Your task to perform on an android device: toggle show notifications on the lock screen Image 0: 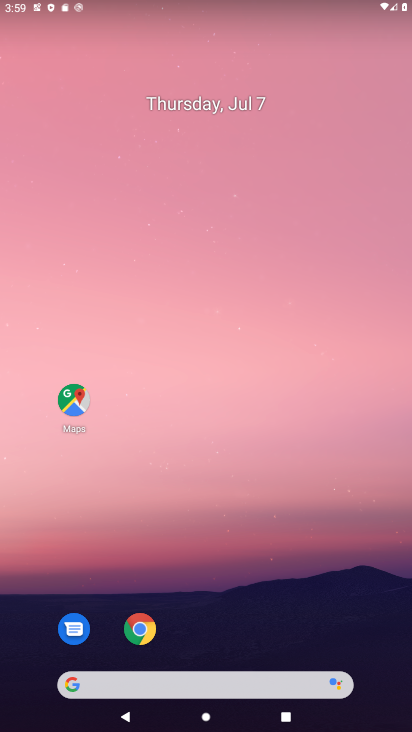
Step 0: drag from (277, 618) to (282, 302)
Your task to perform on an android device: toggle show notifications on the lock screen Image 1: 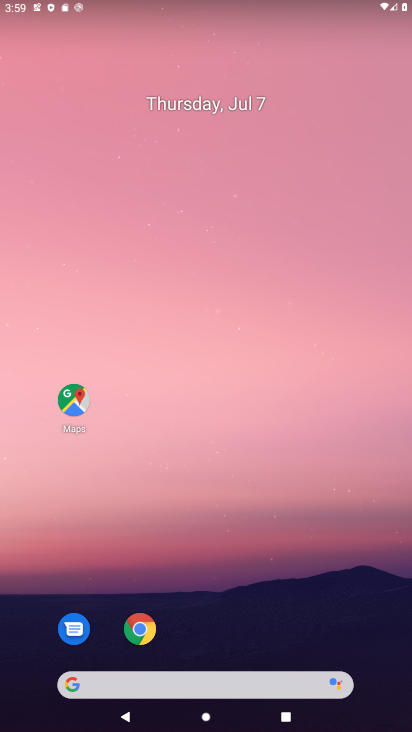
Step 1: drag from (222, 578) to (248, 211)
Your task to perform on an android device: toggle show notifications on the lock screen Image 2: 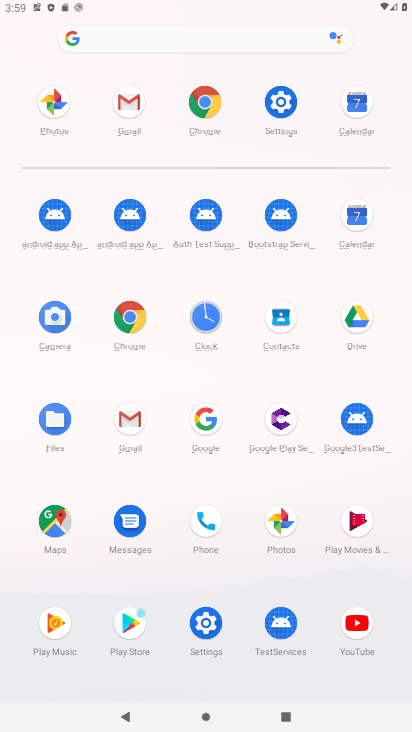
Step 2: click (276, 94)
Your task to perform on an android device: toggle show notifications on the lock screen Image 3: 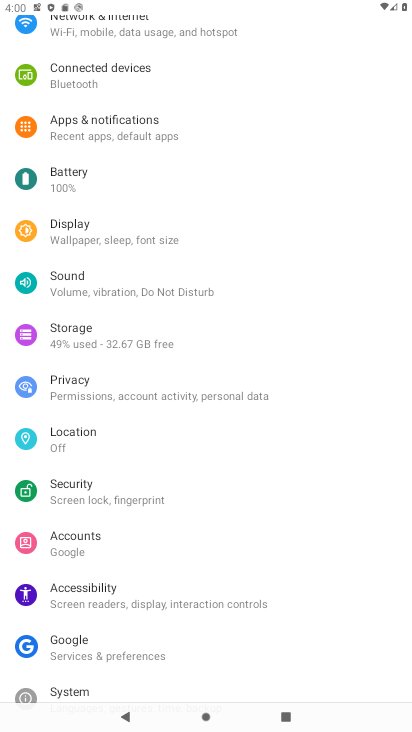
Step 3: drag from (191, 628) to (196, 175)
Your task to perform on an android device: toggle show notifications on the lock screen Image 4: 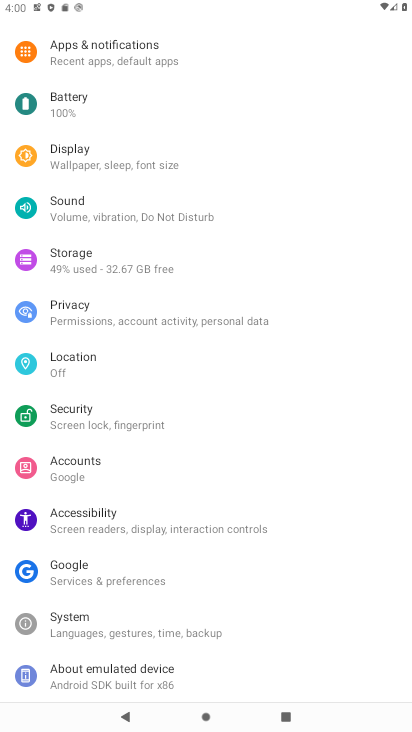
Step 4: drag from (154, 156) to (139, 653)
Your task to perform on an android device: toggle show notifications on the lock screen Image 5: 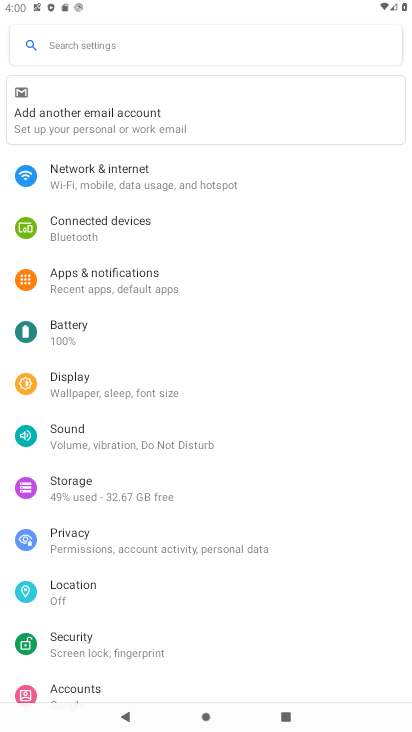
Step 5: click (159, 164)
Your task to perform on an android device: toggle show notifications on the lock screen Image 6: 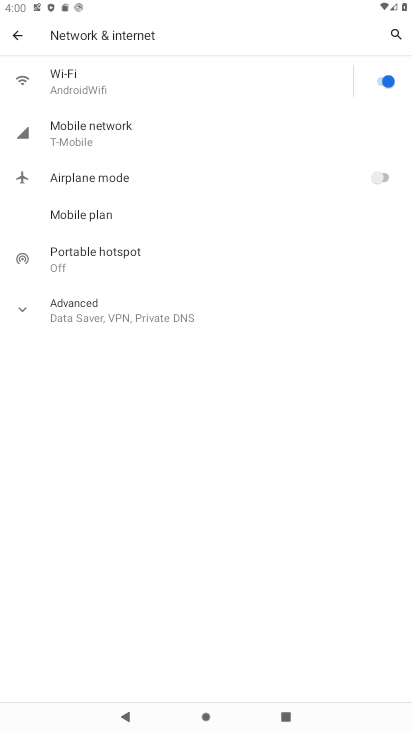
Step 6: press home button
Your task to perform on an android device: toggle show notifications on the lock screen Image 7: 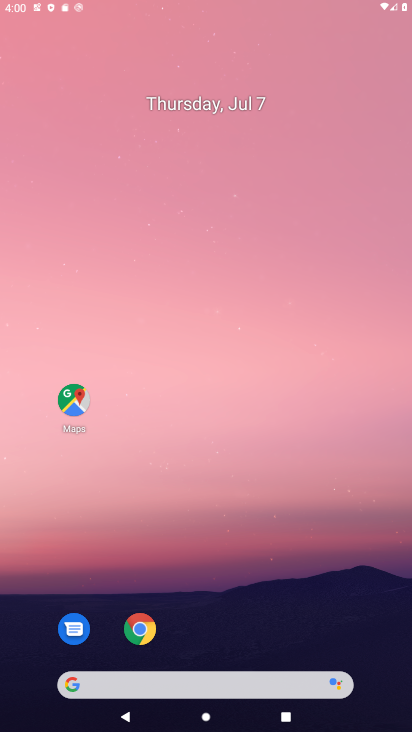
Step 7: drag from (267, 570) to (274, 175)
Your task to perform on an android device: toggle show notifications on the lock screen Image 8: 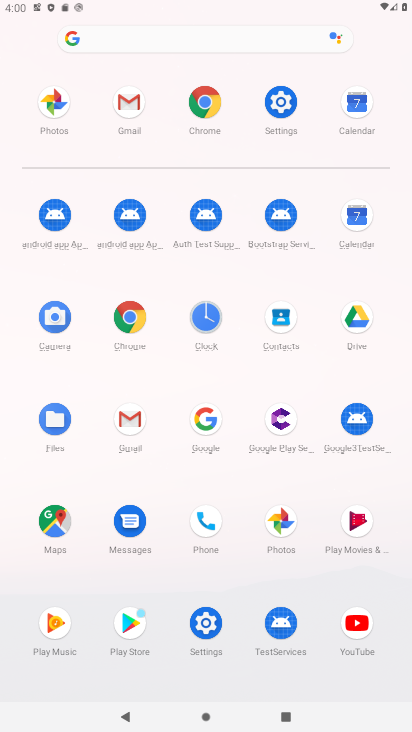
Step 8: click (273, 99)
Your task to perform on an android device: toggle show notifications on the lock screen Image 9: 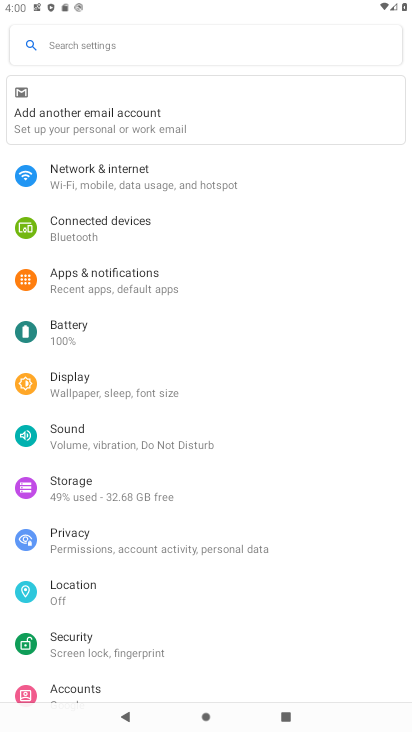
Step 9: click (119, 261)
Your task to perform on an android device: toggle show notifications on the lock screen Image 10: 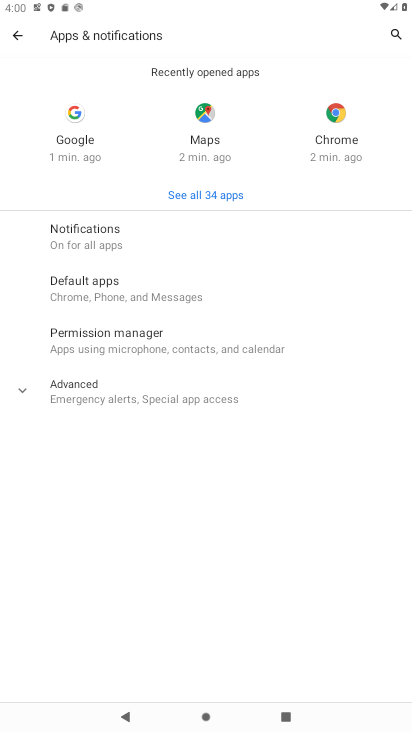
Step 10: click (102, 222)
Your task to perform on an android device: toggle show notifications on the lock screen Image 11: 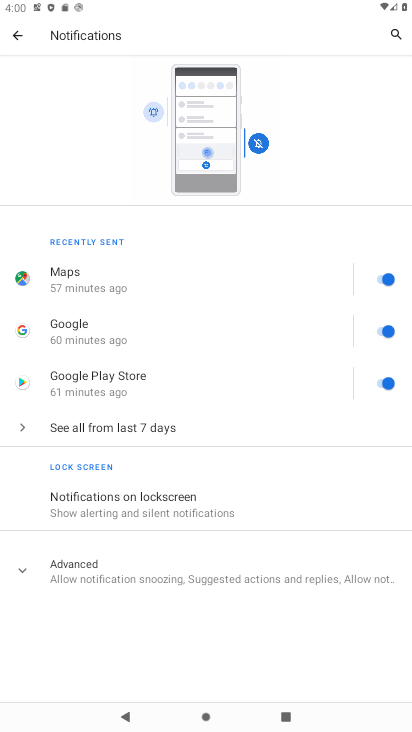
Step 11: click (246, 501)
Your task to perform on an android device: toggle show notifications on the lock screen Image 12: 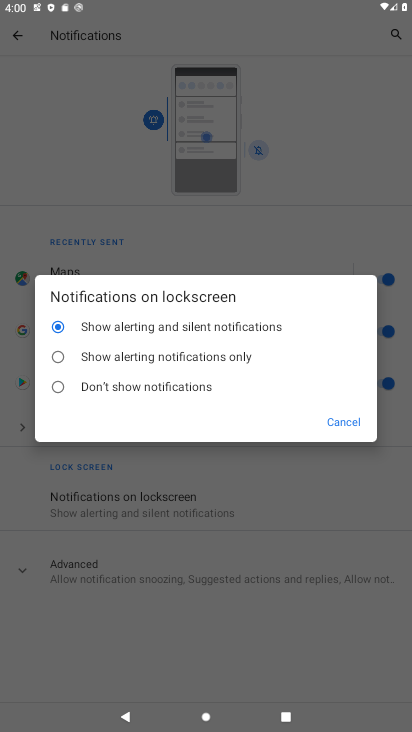
Step 12: click (159, 352)
Your task to perform on an android device: toggle show notifications on the lock screen Image 13: 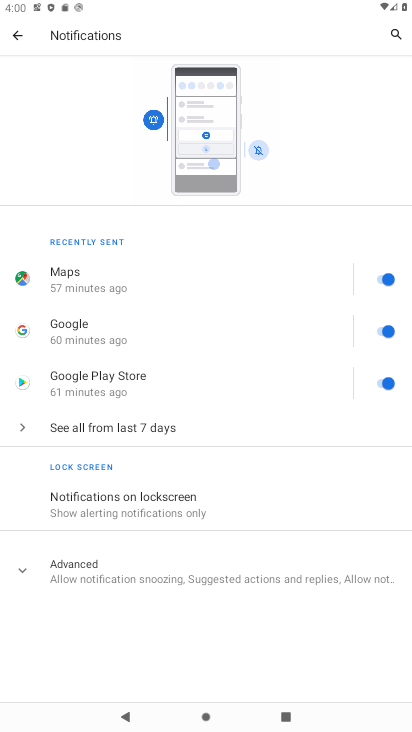
Step 13: task complete